Your task to perform on an android device: turn off sleep mode Image 0: 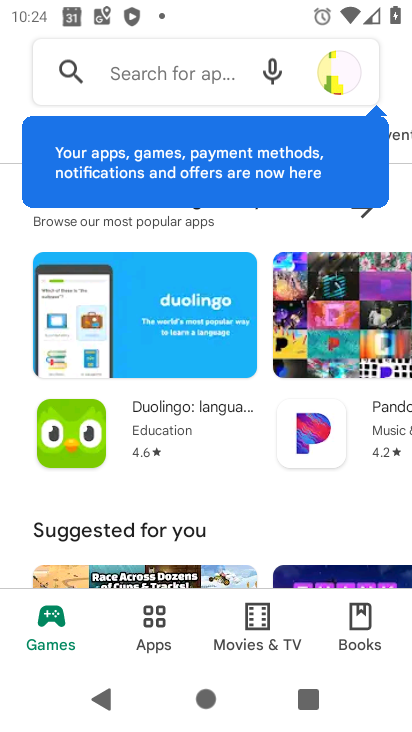
Step 0: drag from (217, 12) to (167, 680)
Your task to perform on an android device: turn off sleep mode Image 1: 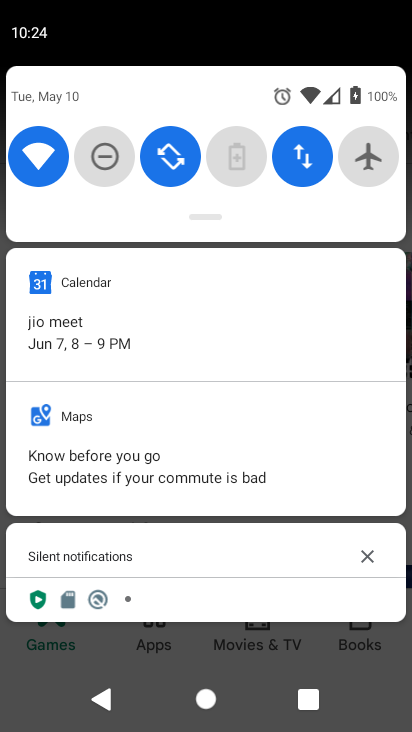
Step 1: drag from (240, 123) to (263, 638)
Your task to perform on an android device: turn off sleep mode Image 2: 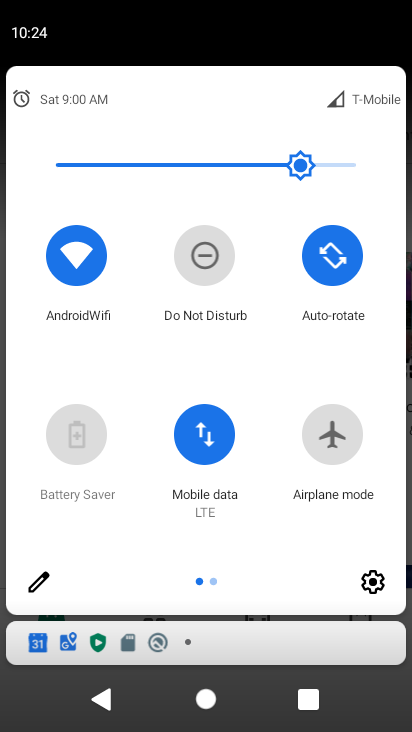
Step 2: click (364, 581)
Your task to perform on an android device: turn off sleep mode Image 3: 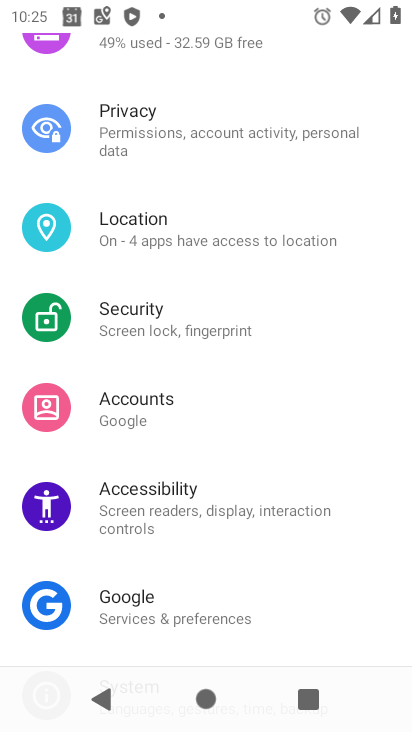
Step 3: task complete